Your task to perform on an android device: turn off location history Image 0: 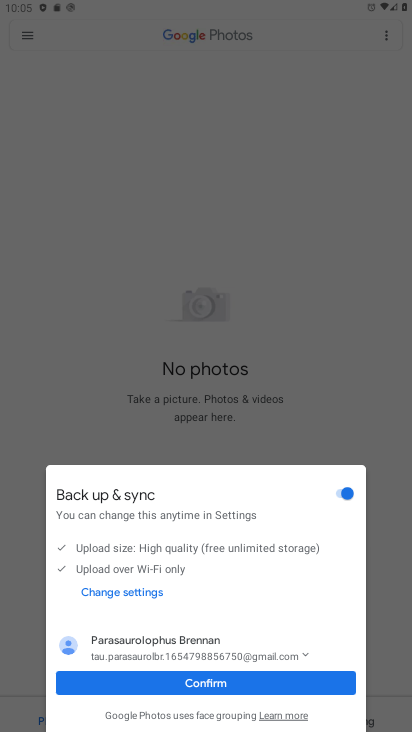
Step 0: press home button
Your task to perform on an android device: turn off location history Image 1: 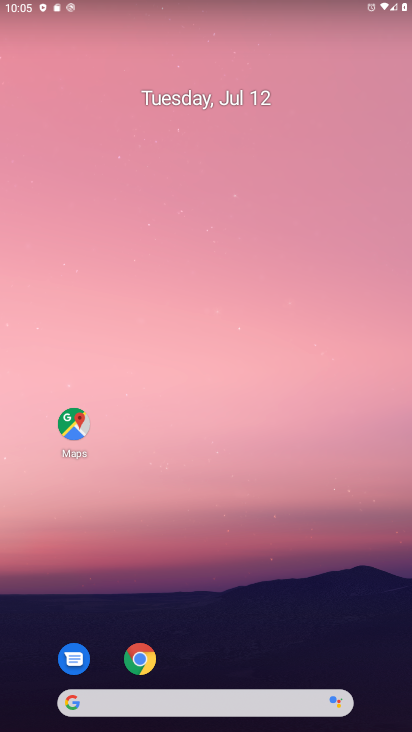
Step 1: drag from (163, 692) to (158, 0)
Your task to perform on an android device: turn off location history Image 2: 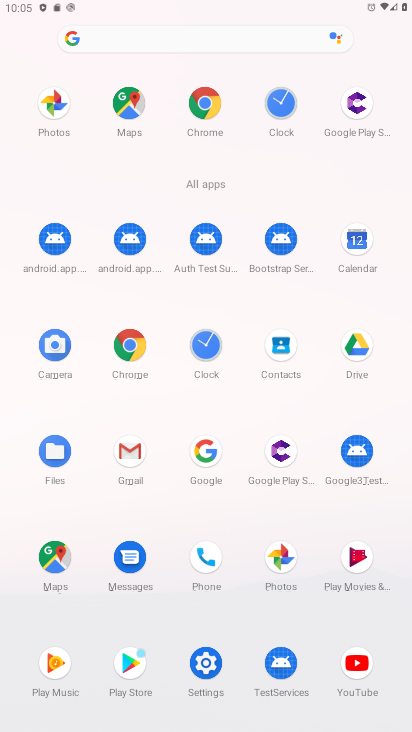
Step 2: click (206, 666)
Your task to perform on an android device: turn off location history Image 3: 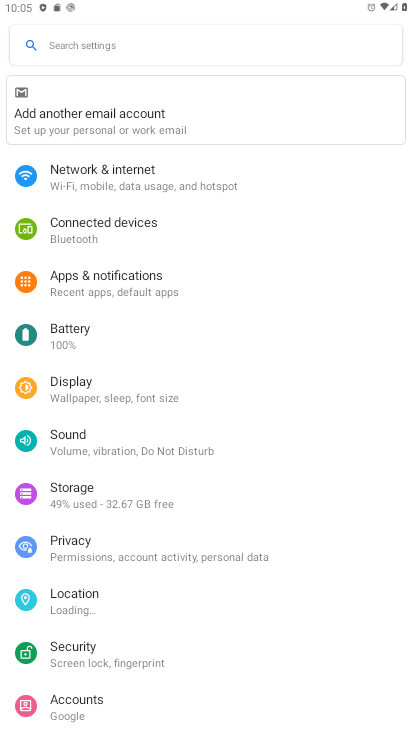
Step 3: click (104, 601)
Your task to perform on an android device: turn off location history Image 4: 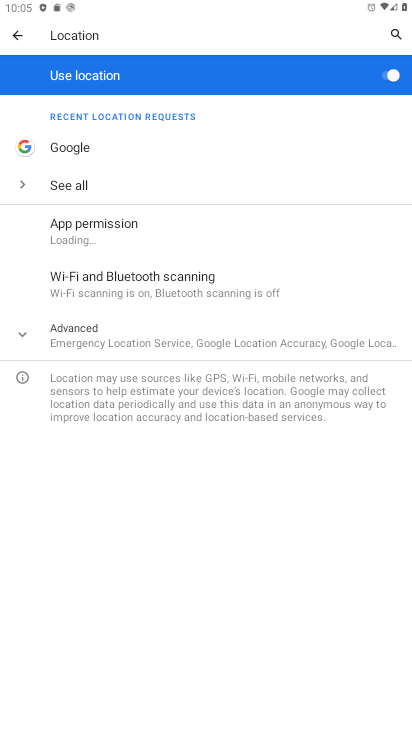
Step 4: click (141, 334)
Your task to perform on an android device: turn off location history Image 5: 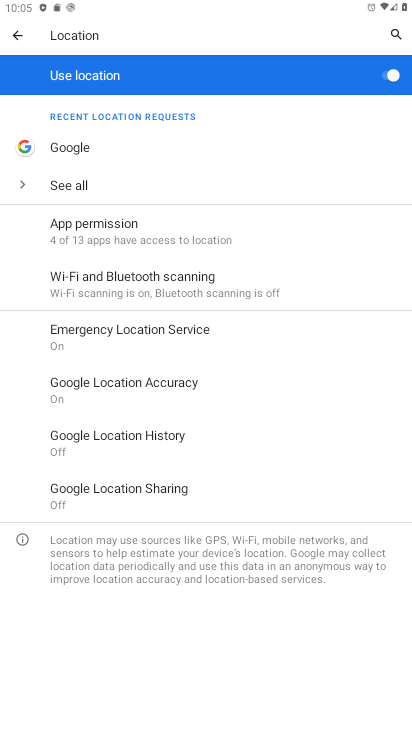
Step 5: click (165, 436)
Your task to perform on an android device: turn off location history Image 6: 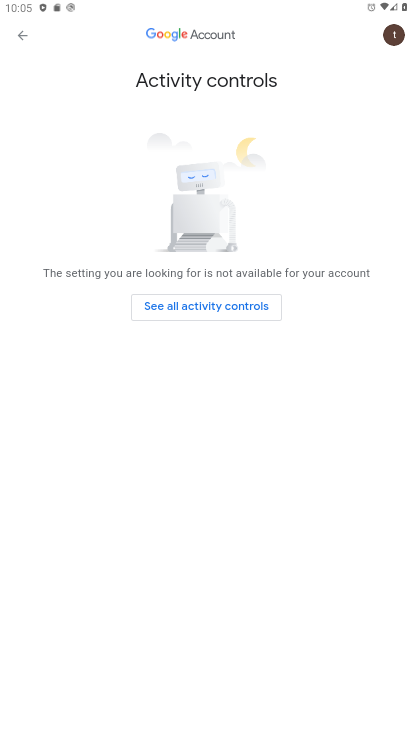
Step 6: task complete